Your task to perform on an android device: turn off translation in the chrome app Image 0: 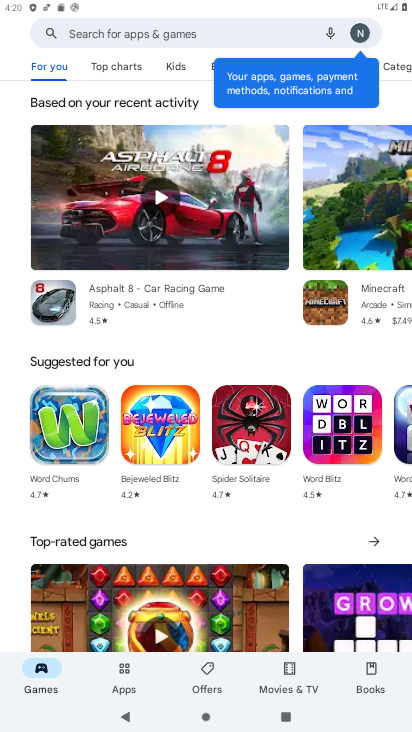
Step 0: press home button
Your task to perform on an android device: turn off translation in the chrome app Image 1: 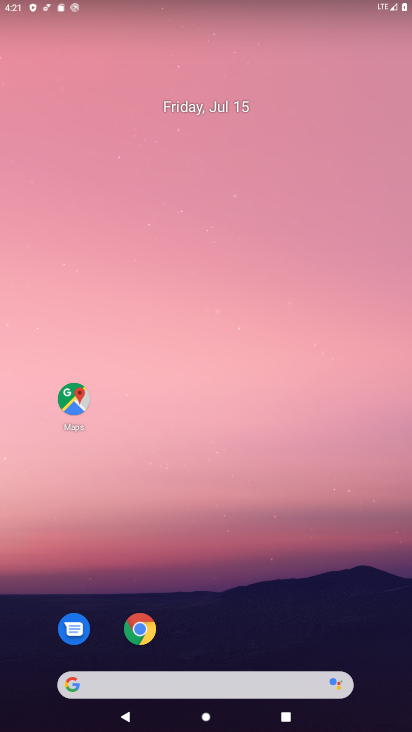
Step 1: click (140, 626)
Your task to perform on an android device: turn off translation in the chrome app Image 2: 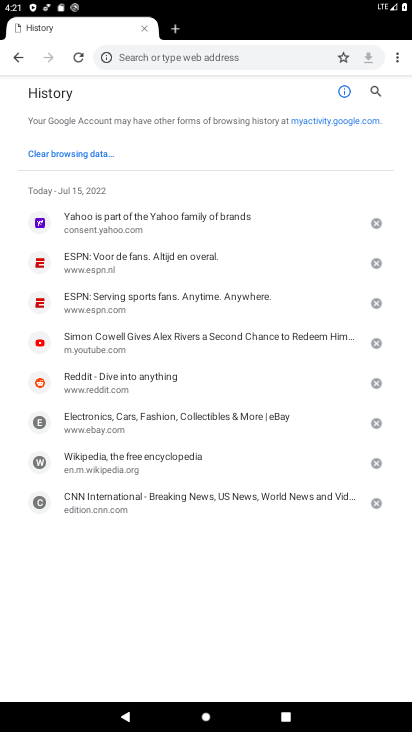
Step 2: click (401, 57)
Your task to perform on an android device: turn off translation in the chrome app Image 3: 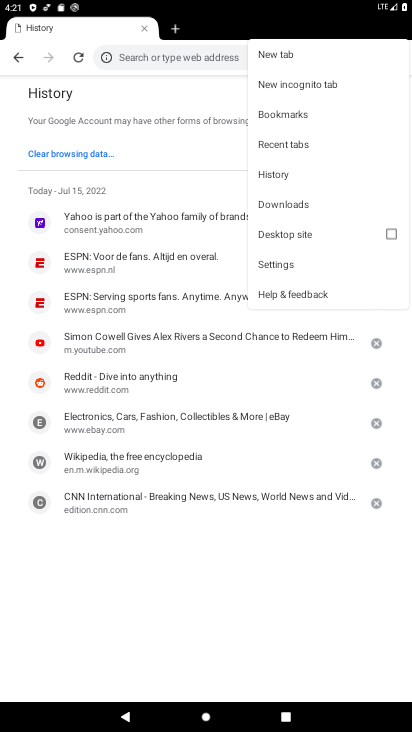
Step 3: click (285, 264)
Your task to perform on an android device: turn off translation in the chrome app Image 4: 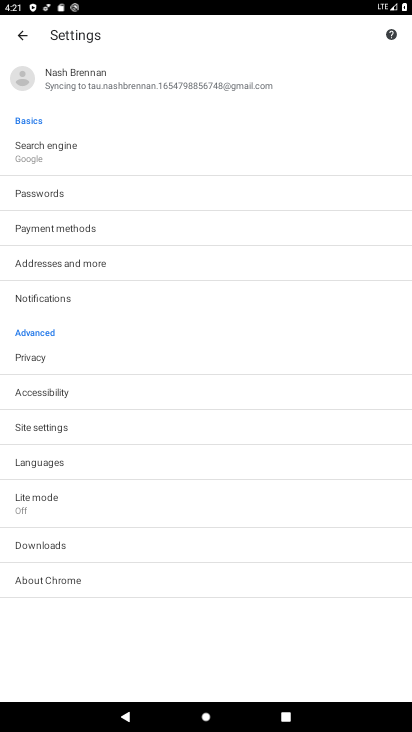
Step 4: click (32, 460)
Your task to perform on an android device: turn off translation in the chrome app Image 5: 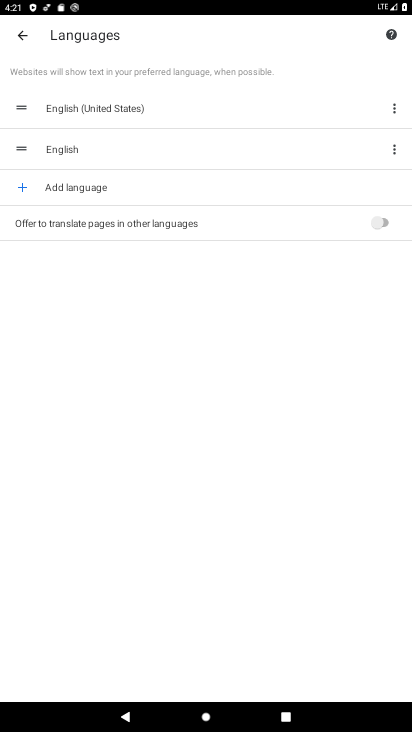
Step 5: task complete